Your task to perform on an android device: change the clock display to analog Image 0: 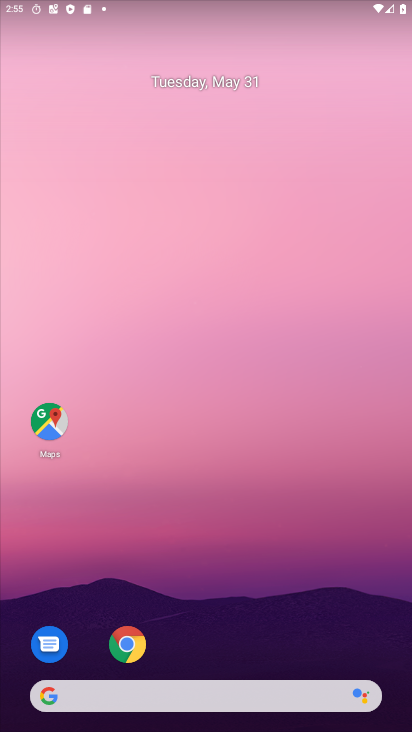
Step 0: drag from (394, 716) to (304, 127)
Your task to perform on an android device: change the clock display to analog Image 1: 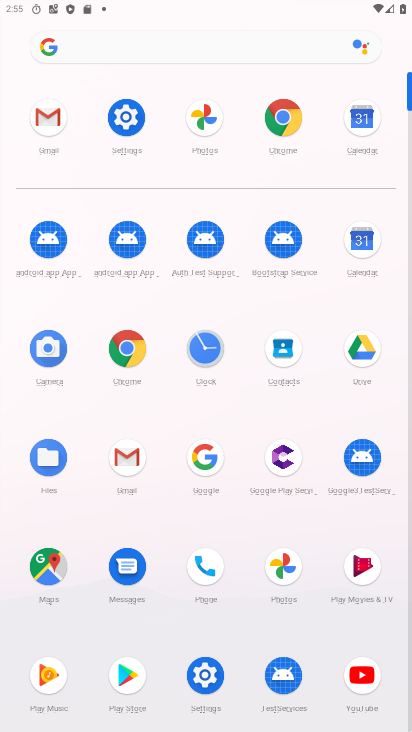
Step 1: click (206, 351)
Your task to perform on an android device: change the clock display to analog Image 2: 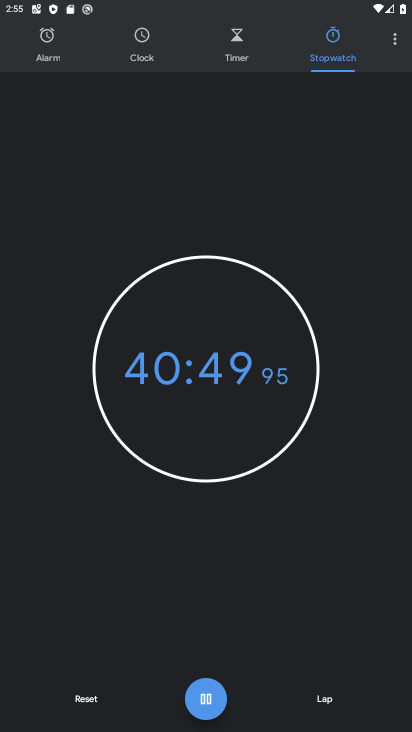
Step 2: click (396, 43)
Your task to perform on an android device: change the clock display to analog Image 3: 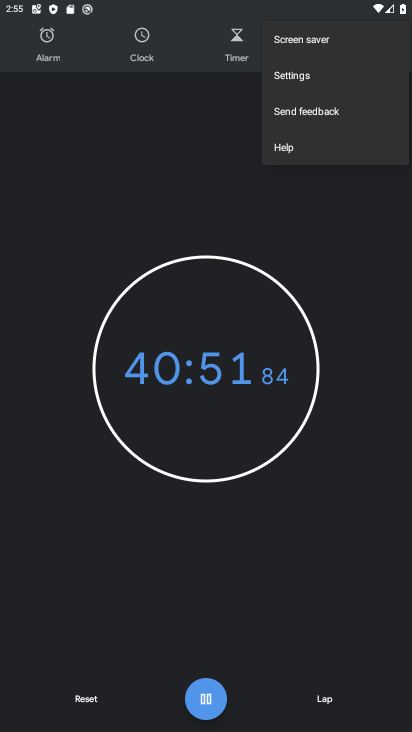
Step 3: click (278, 80)
Your task to perform on an android device: change the clock display to analog Image 4: 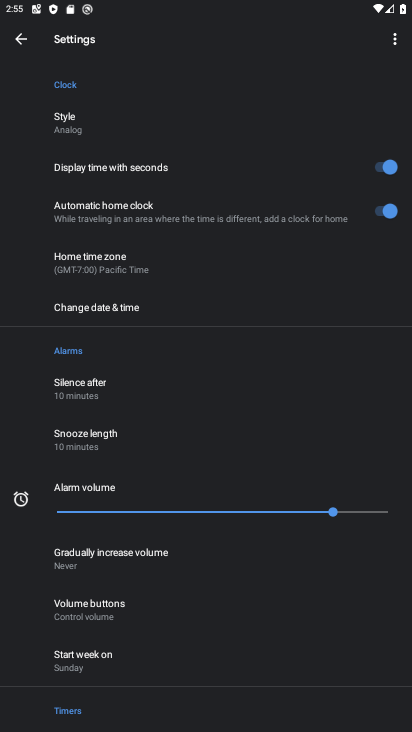
Step 4: click (66, 119)
Your task to perform on an android device: change the clock display to analog Image 5: 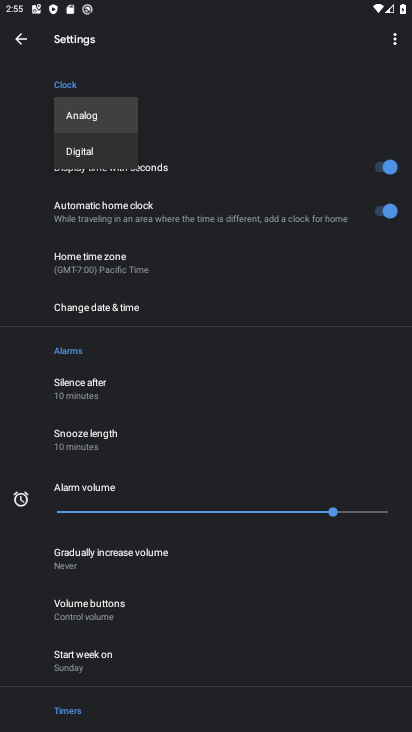
Step 5: task complete